Your task to perform on an android device: turn on data saver in the chrome app Image 0: 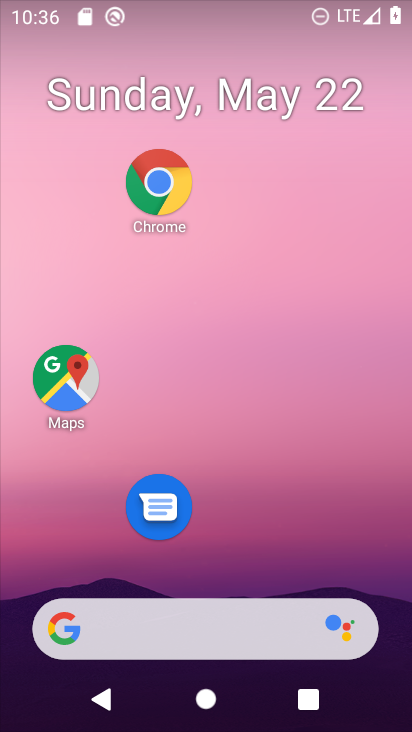
Step 0: click (158, 169)
Your task to perform on an android device: turn on data saver in the chrome app Image 1: 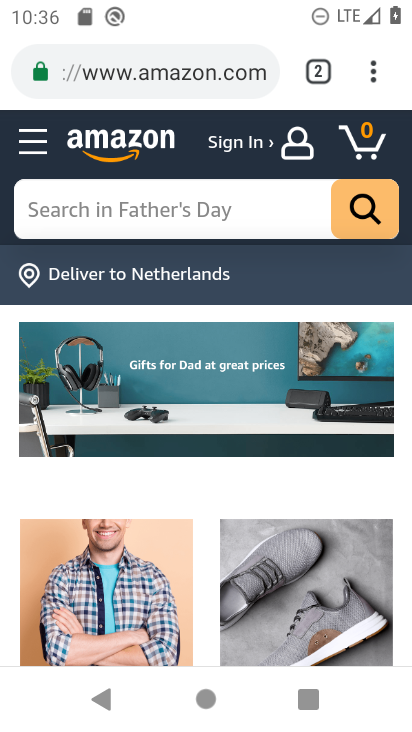
Step 1: click (374, 73)
Your task to perform on an android device: turn on data saver in the chrome app Image 2: 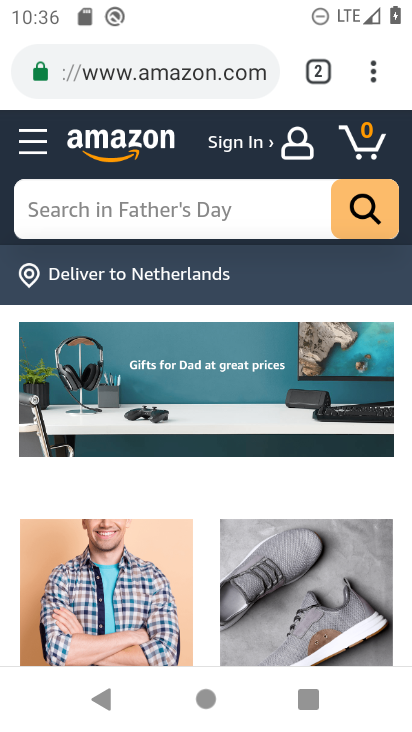
Step 2: click (375, 77)
Your task to perform on an android device: turn on data saver in the chrome app Image 3: 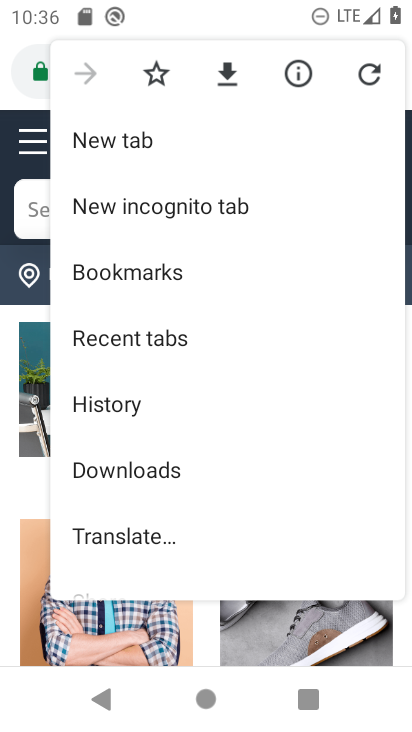
Step 3: drag from (198, 540) to (222, 15)
Your task to perform on an android device: turn on data saver in the chrome app Image 4: 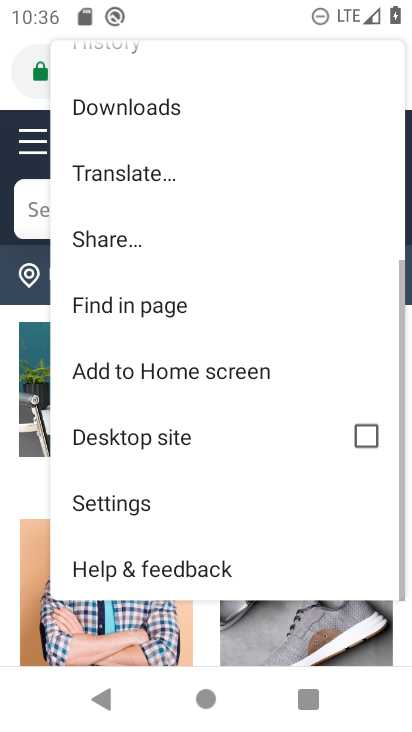
Step 4: click (175, 503)
Your task to perform on an android device: turn on data saver in the chrome app Image 5: 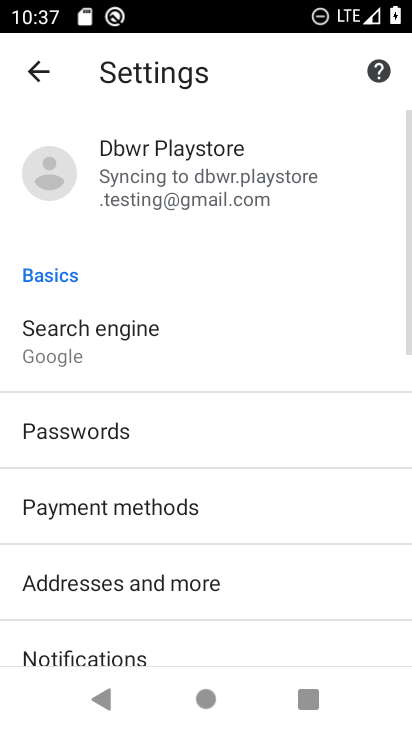
Step 5: drag from (286, 482) to (362, 17)
Your task to perform on an android device: turn on data saver in the chrome app Image 6: 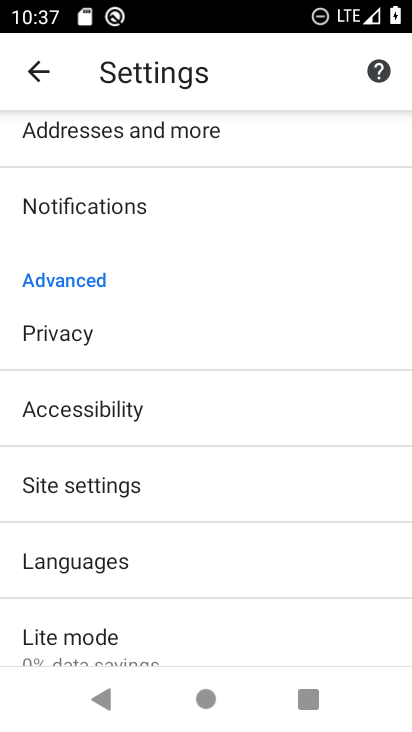
Step 6: click (158, 644)
Your task to perform on an android device: turn on data saver in the chrome app Image 7: 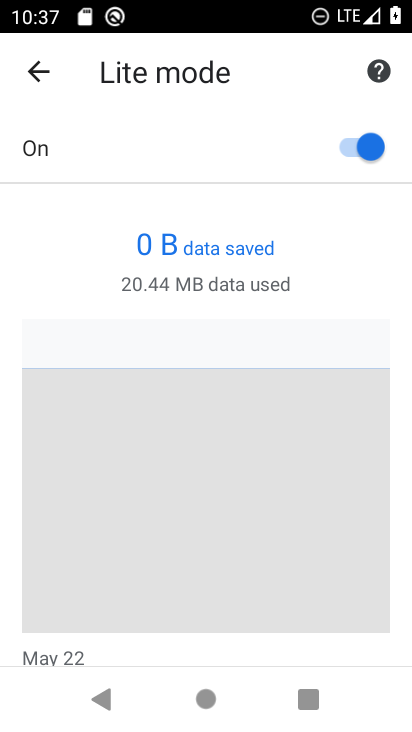
Step 7: task complete